Your task to perform on an android device: stop showing notifications on the lock screen Image 0: 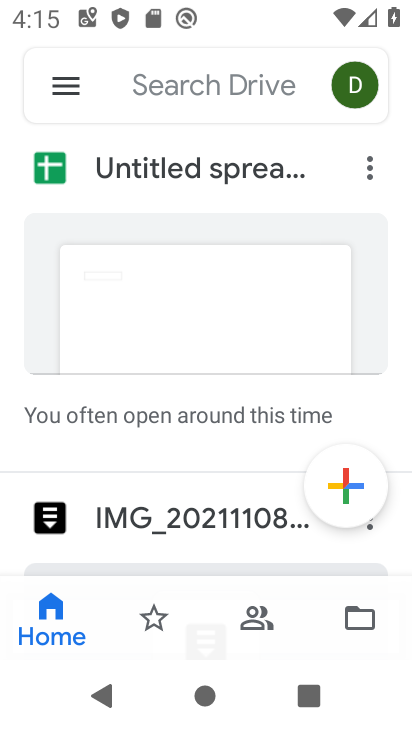
Step 0: press home button
Your task to perform on an android device: stop showing notifications on the lock screen Image 1: 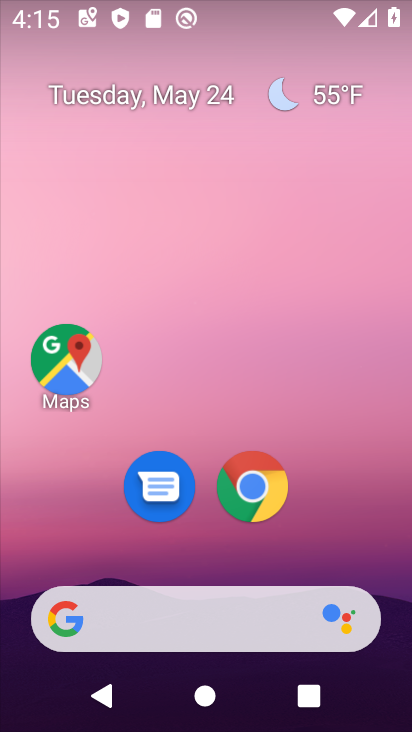
Step 1: click (258, 449)
Your task to perform on an android device: stop showing notifications on the lock screen Image 2: 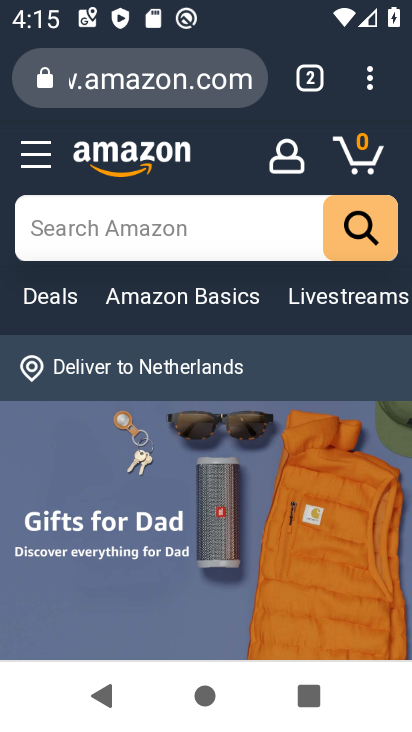
Step 2: press home button
Your task to perform on an android device: stop showing notifications on the lock screen Image 3: 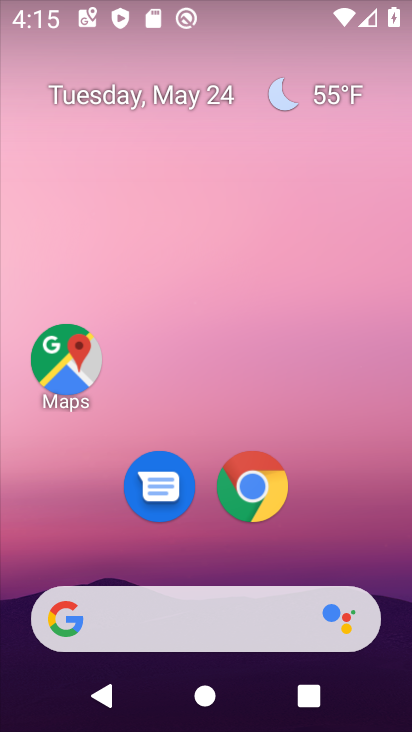
Step 3: drag from (300, 534) to (304, 301)
Your task to perform on an android device: stop showing notifications on the lock screen Image 4: 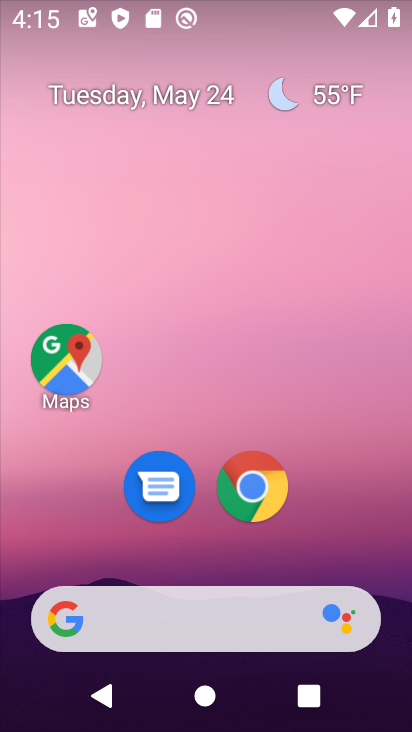
Step 4: drag from (322, 529) to (327, 354)
Your task to perform on an android device: stop showing notifications on the lock screen Image 5: 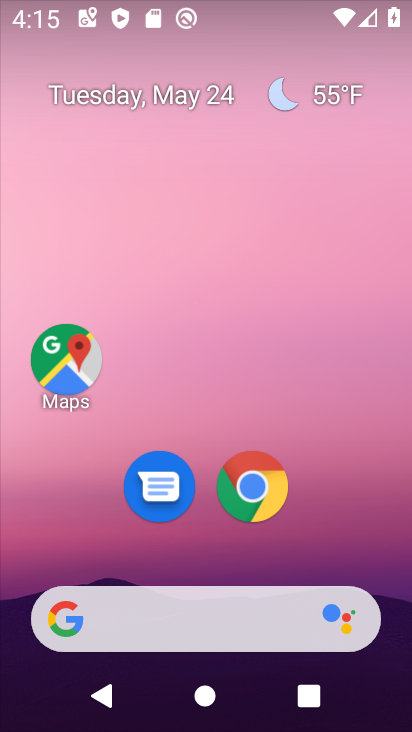
Step 5: drag from (128, 307) to (56, 38)
Your task to perform on an android device: stop showing notifications on the lock screen Image 6: 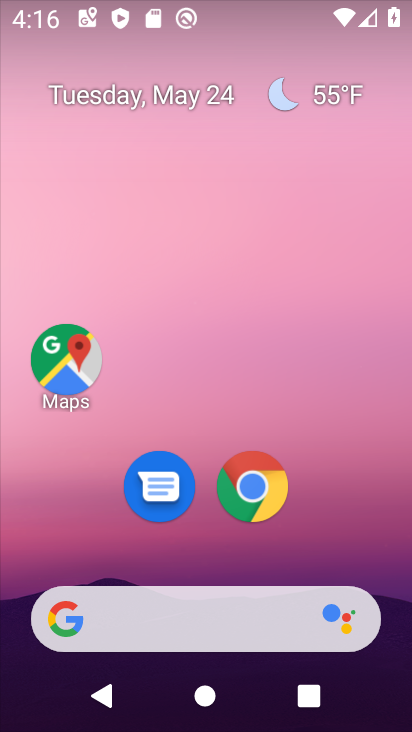
Step 6: drag from (250, 423) to (147, 33)
Your task to perform on an android device: stop showing notifications on the lock screen Image 7: 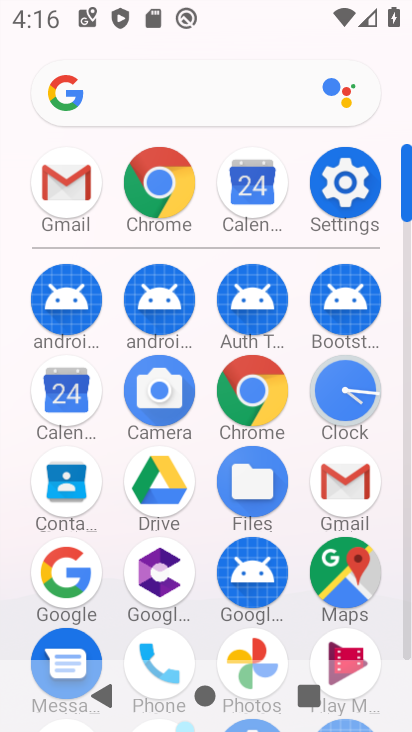
Step 7: click (345, 182)
Your task to perform on an android device: stop showing notifications on the lock screen Image 8: 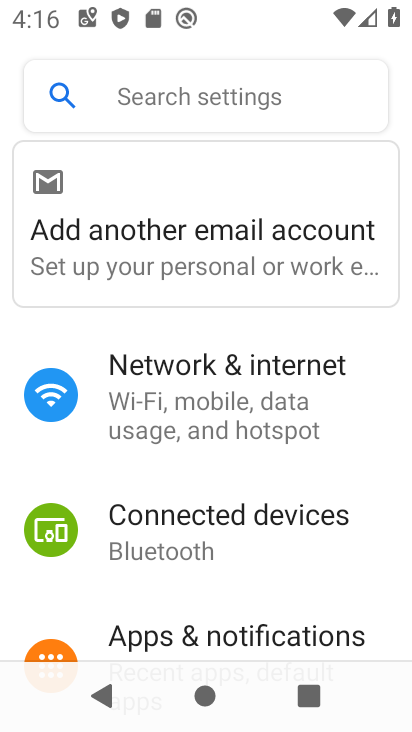
Step 8: drag from (244, 400) to (233, 225)
Your task to perform on an android device: stop showing notifications on the lock screen Image 9: 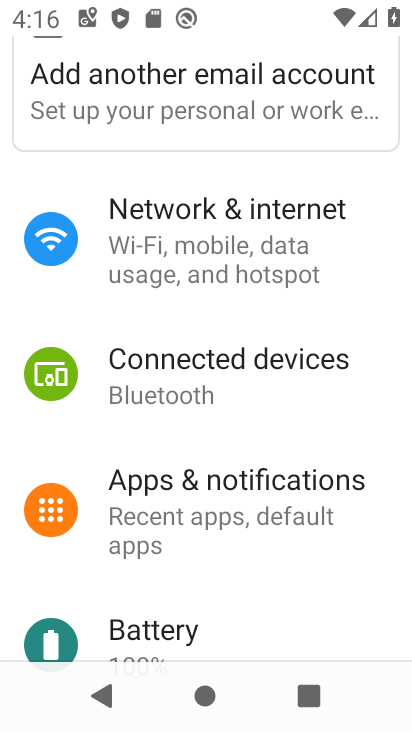
Step 9: drag from (228, 432) to (198, 205)
Your task to perform on an android device: stop showing notifications on the lock screen Image 10: 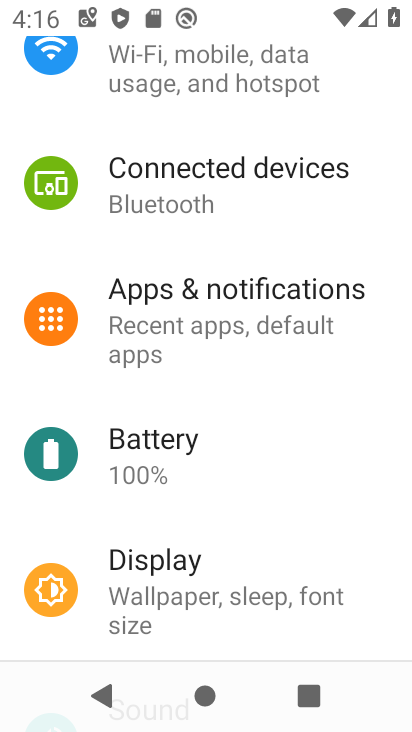
Step 10: drag from (335, 490) to (274, 288)
Your task to perform on an android device: stop showing notifications on the lock screen Image 11: 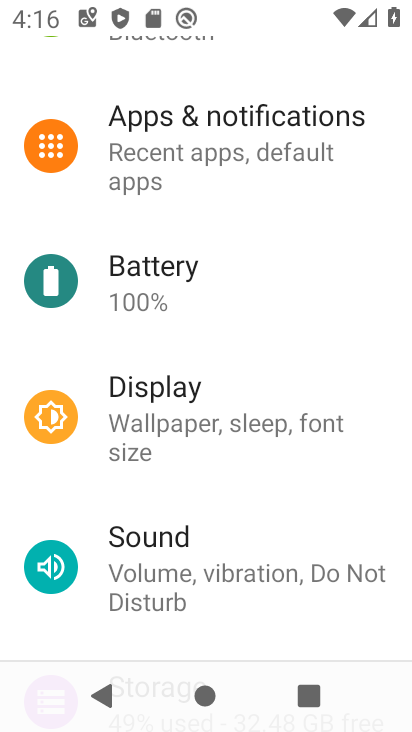
Step 11: click (199, 124)
Your task to perform on an android device: stop showing notifications on the lock screen Image 12: 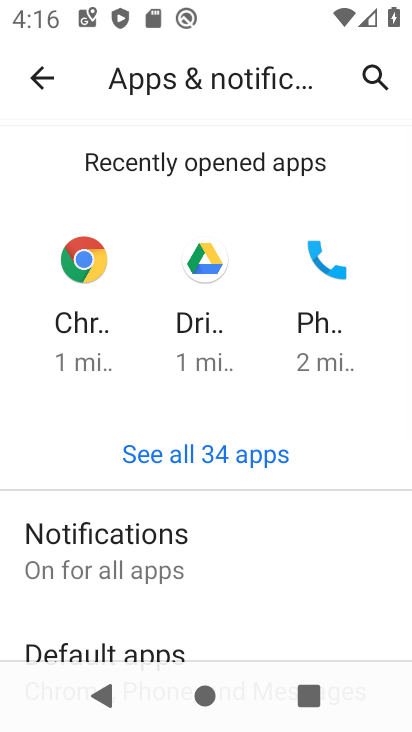
Step 12: drag from (215, 569) to (237, 244)
Your task to perform on an android device: stop showing notifications on the lock screen Image 13: 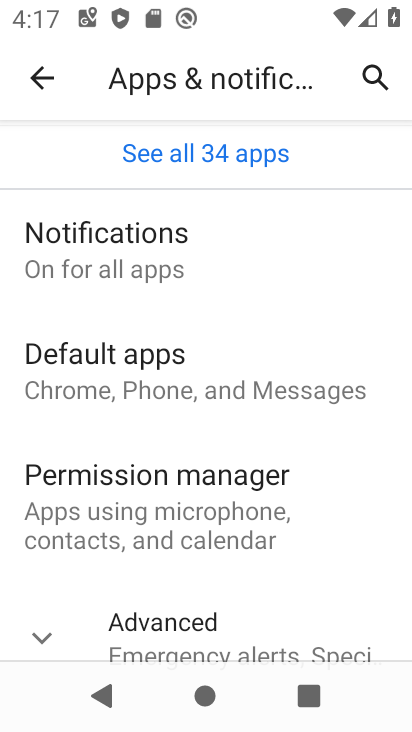
Step 13: click (266, 617)
Your task to perform on an android device: stop showing notifications on the lock screen Image 14: 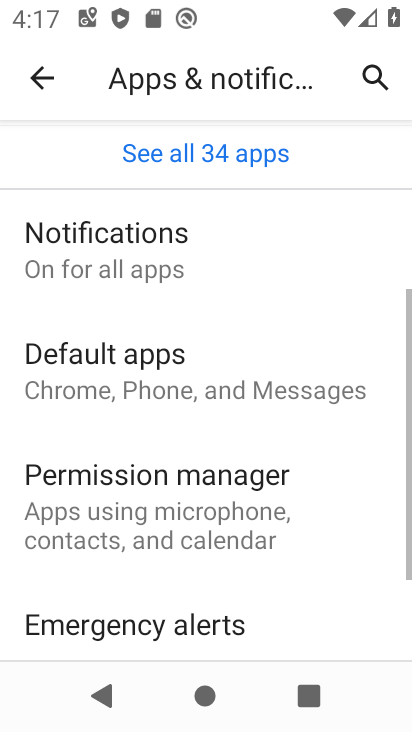
Step 14: drag from (263, 616) to (290, 306)
Your task to perform on an android device: stop showing notifications on the lock screen Image 15: 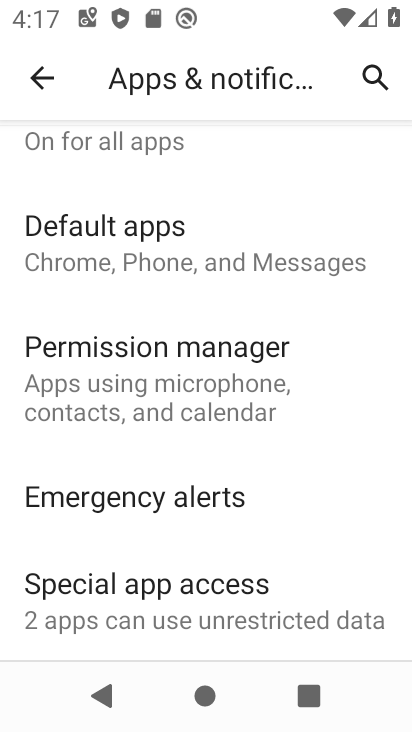
Step 15: drag from (185, 191) to (191, 597)
Your task to perform on an android device: stop showing notifications on the lock screen Image 16: 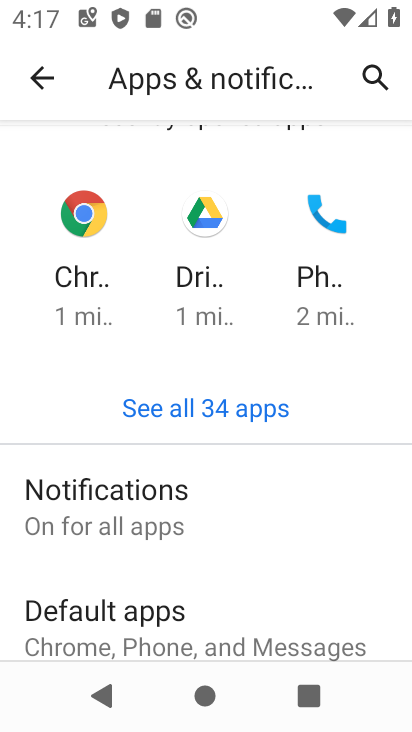
Step 16: click (195, 471)
Your task to perform on an android device: stop showing notifications on the lock screen Image 17: 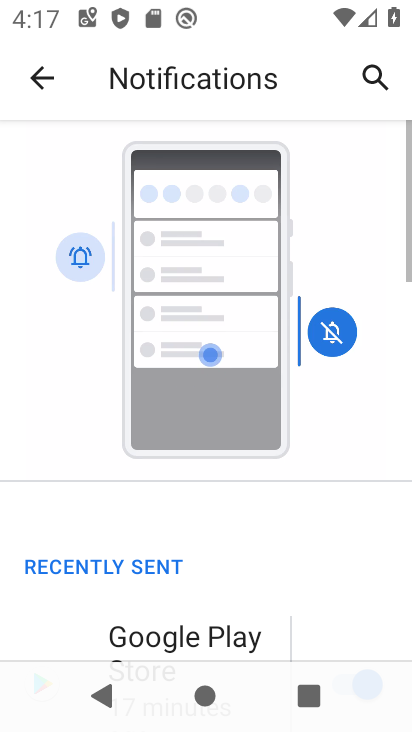
Step 17: drag from (174, 546) to (179, 335)
Your task to perform on an android device: stop showing notifications on the lock screen Image 18: 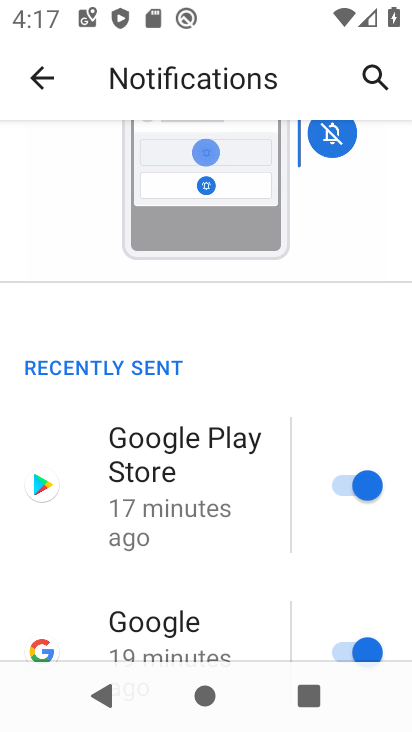
Step 18: drag from (163, 547) to (220, 248)
Your task to perform on an android device: stop showing notifications on the lock screen Image 19: 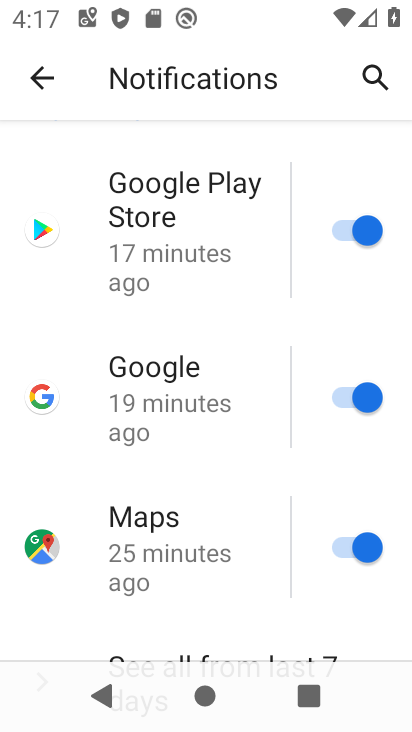
Step 19: drag from (181, 489) to (230, 211)
Your task to perform on an android device: stop showing notifications on the lock screen Image 20: 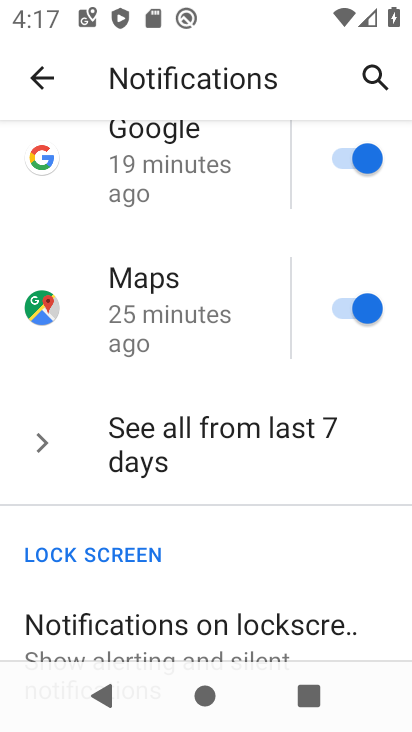
Step 20: click (247, 611)
Your task to perform on an android device: stop showing notifications on the lock screen Image 21: 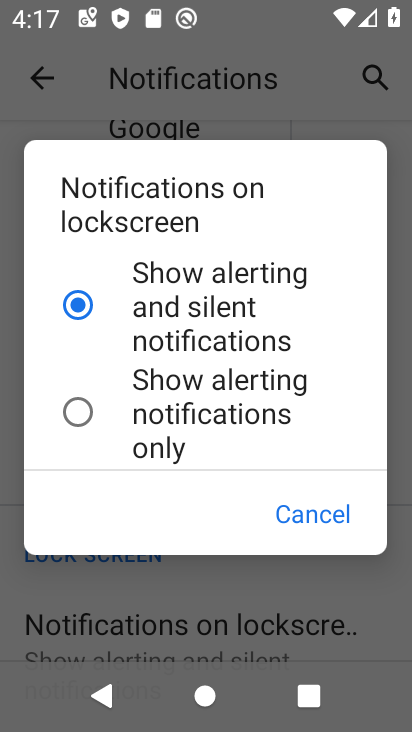
Step 21: drag from (192, 401) to (209, 242)
Your task to perform on an android device: stop showing notifications on the lock screen Image 22: 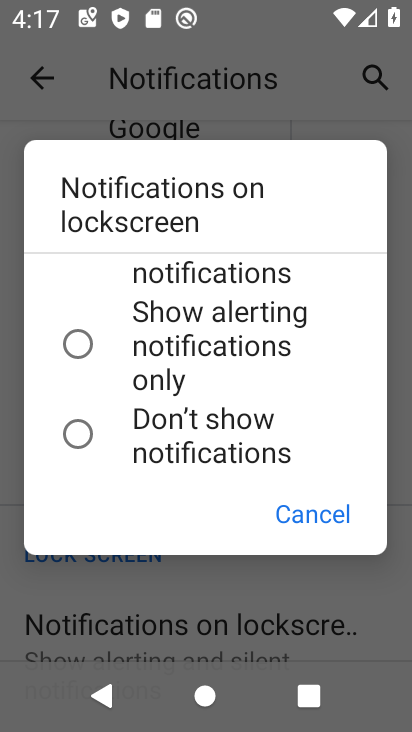
Step 22: click (75, 426)
Your task to perform on an android device: stop showing notifications on the lock screen Image 23: 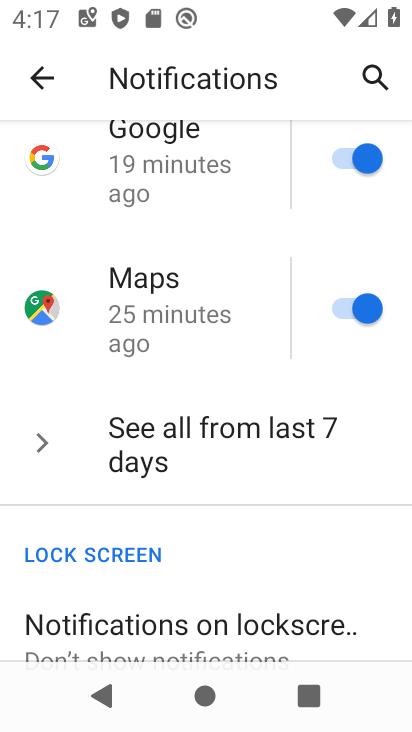
Step 23: task complete